Your task to perform on an android device: What's the weather going to be tomorrow? Image 0: 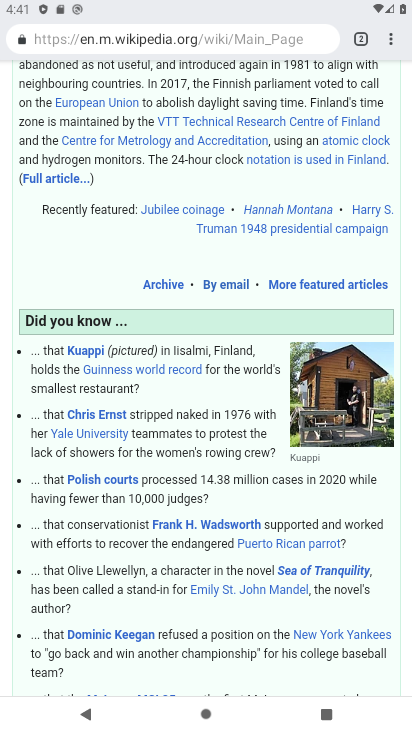
Step 0: press home button
Your task to perform on an android device: What's the weather going to be tomorrow? Image 1: 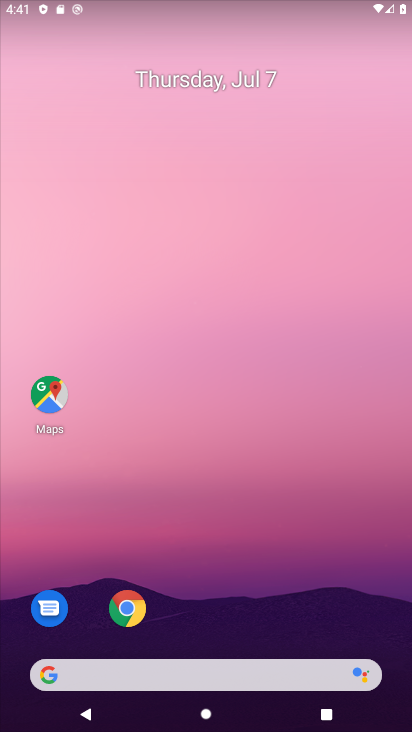
Step 1: click (190, 669)
Your task to perform on an android device: What's the weather going to be tomorrow? Image 2: 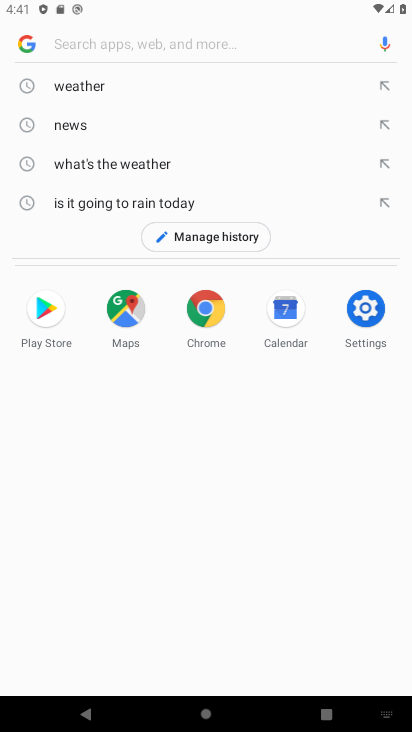
Step 2: click (93, 84)
Your task to perform on an android device: What's the weather going to be tomorrow? Image 3: 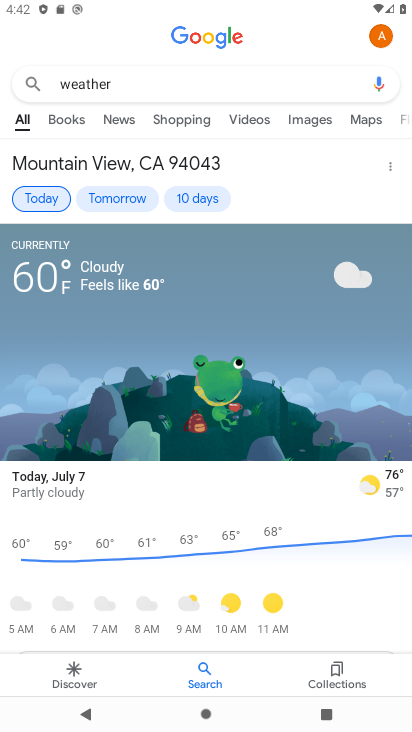
Step 3: click (115, 192)
Your task to perform on an android device: What's the weather going to be tomorrow? Image 4: 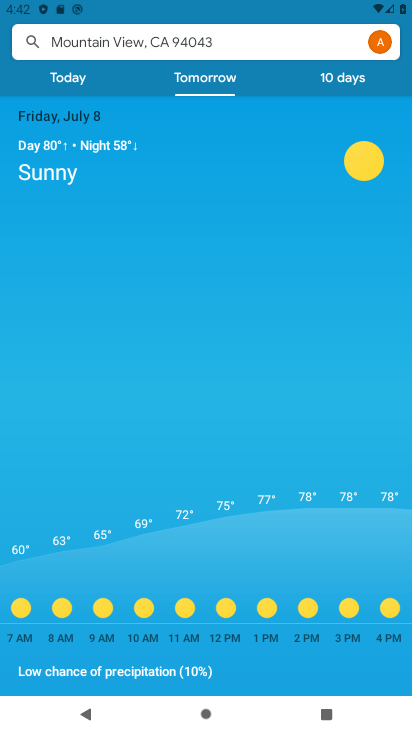
Step 4: task complete